Your task to perform on an android device: turn on sleep mode Image 0: 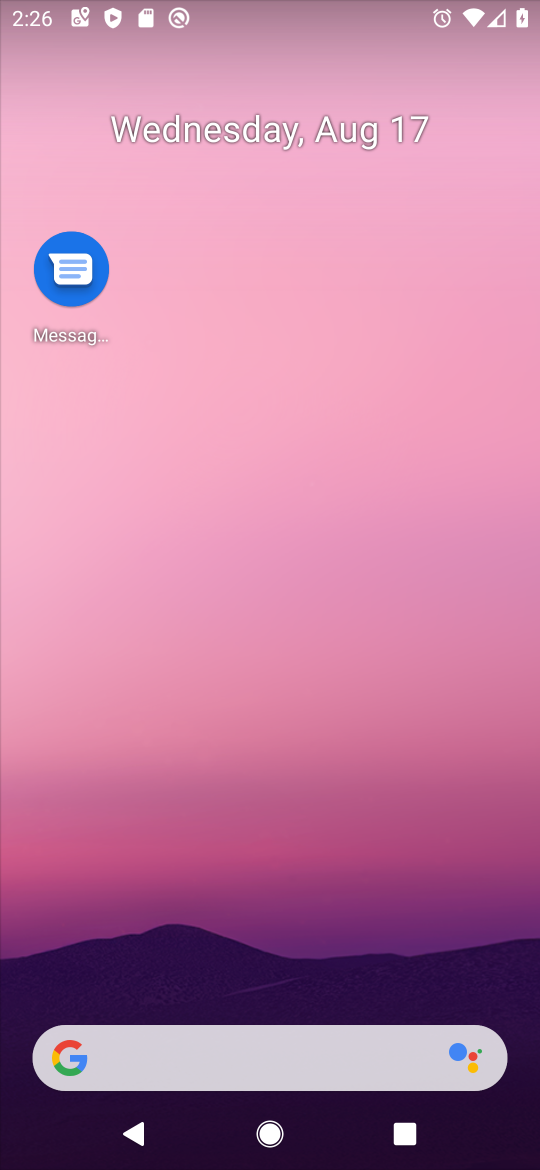
Step 0: drag from (286, 992) to (246, 67)
Your task to perform on an android device: turn on sleep mode Image 1: 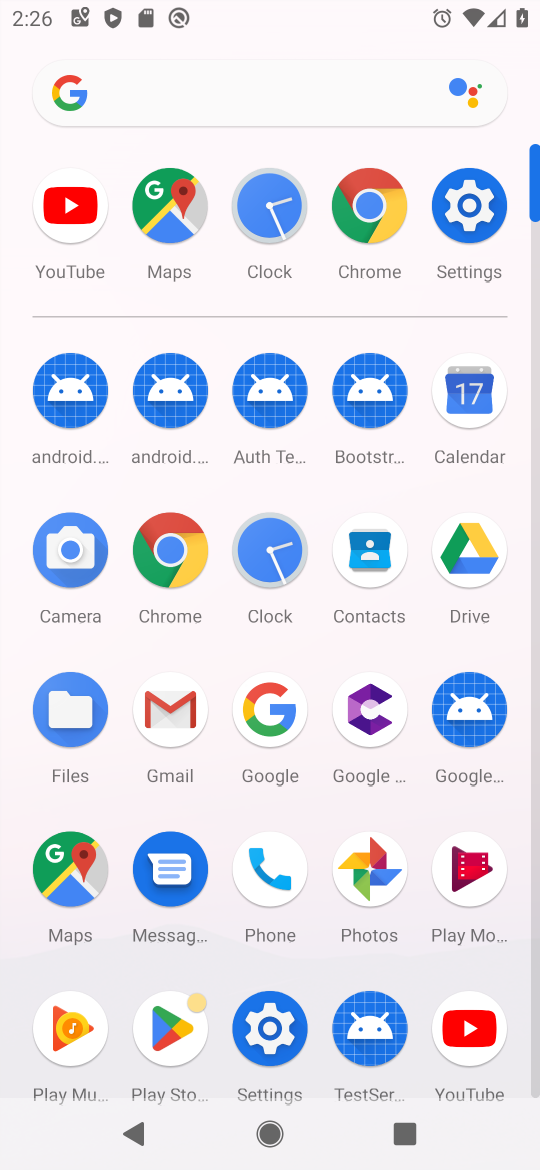
Step 1: click (261, 1044)
Your task to perform on an android device: turn on sleep mode Image 2: 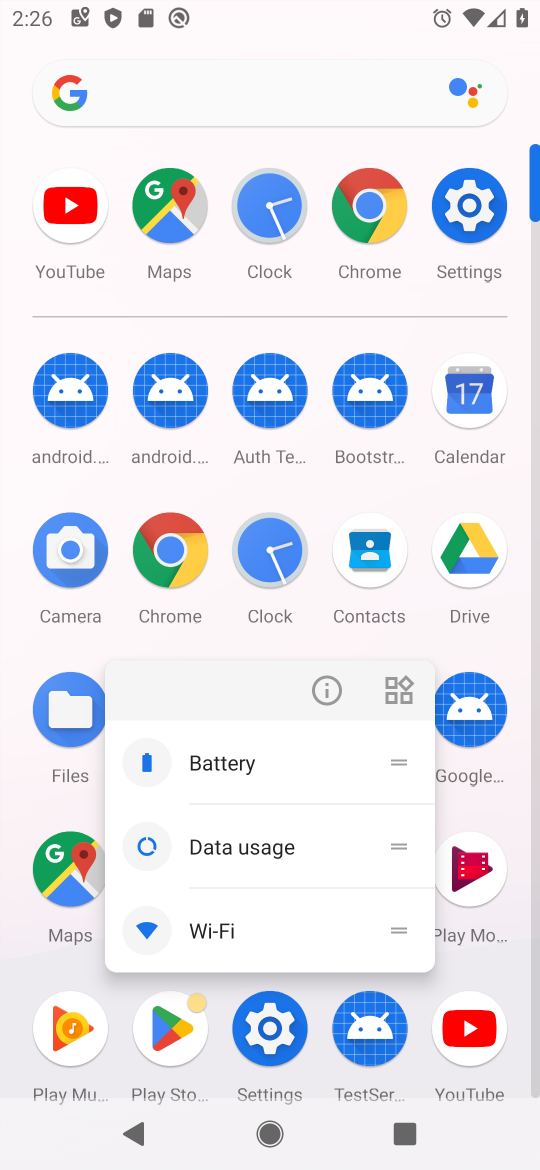
Step 2: click (256, 1035)
Your task to perform on an android device: turn on sleep mode Image 3: 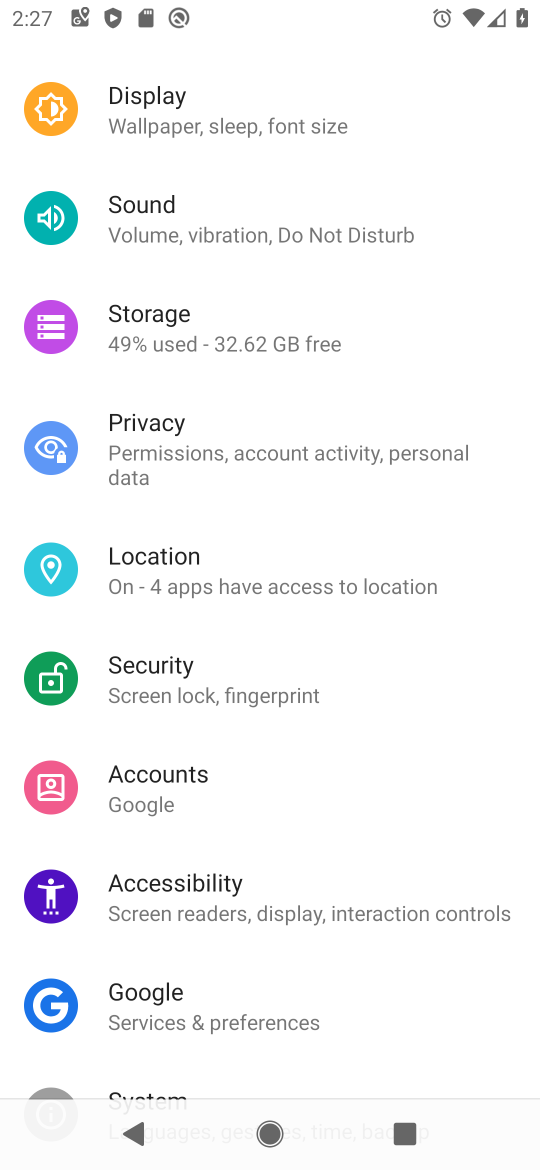
Step 3: click (148, 126)
Your task to perform on an android device: turn on sleep mode Image 4: 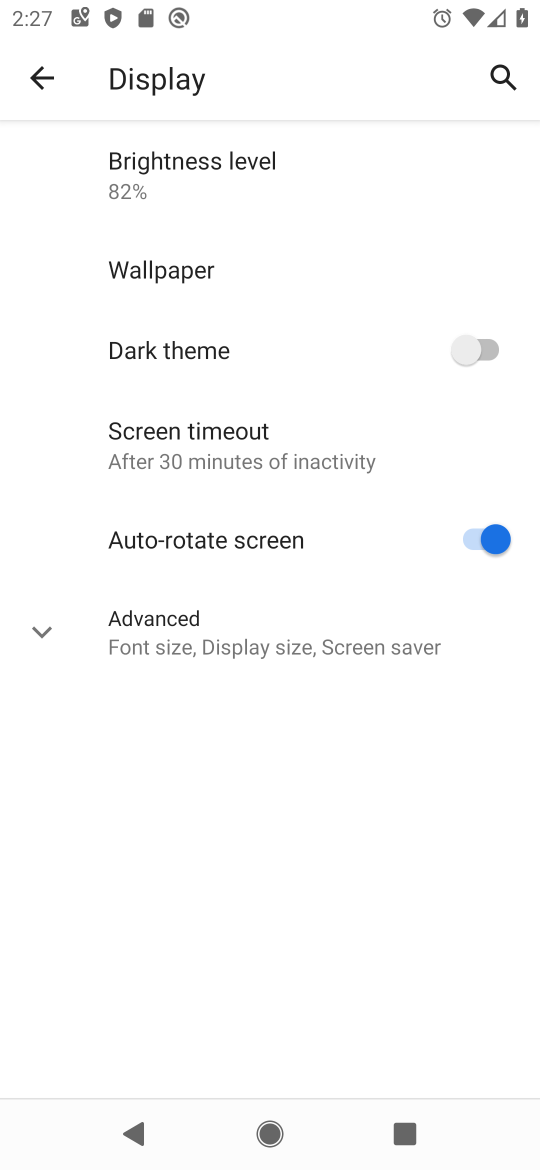
Step 4: click (77, 642)
Your task to perform on an android device: turn on sleep mode Image 5: 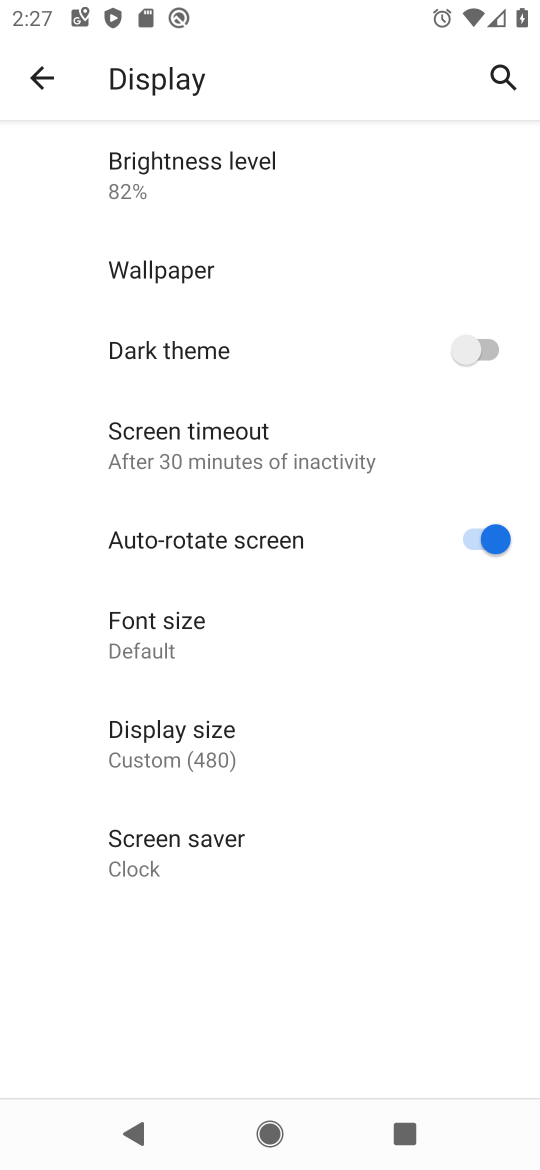
Step 5: task complete